Your task to perform on an android device: Search for razer deathadder on target.com, select the first entry, add it to the cart, then select checkout. Image 0: 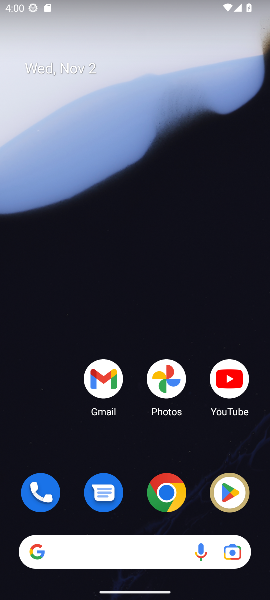
Step 0: click (167, 493)
Your task to perform on an android device: Search for razer deathadder on target.com, select the first entry, add it to the cart, then select checkout. Image 1: 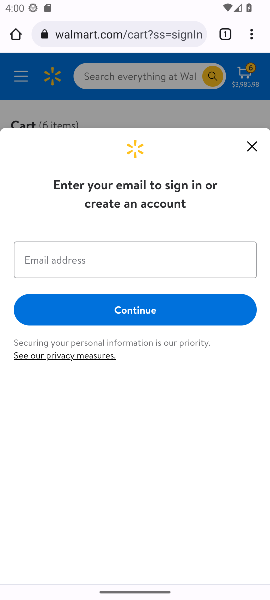
Step 1: click (148, 22)
Your task to perform on an android device: Search for razer deathadder on target.com, select the first entry, add it to the cart, then select checkout. Image 2: 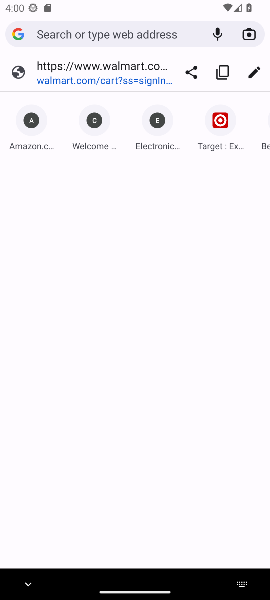
Step 2: type "target.com"
Your task to perform on an android device: Search for razer deathadder on target.com, select the first entry, add it to the cart, then select checkout. Image 3: 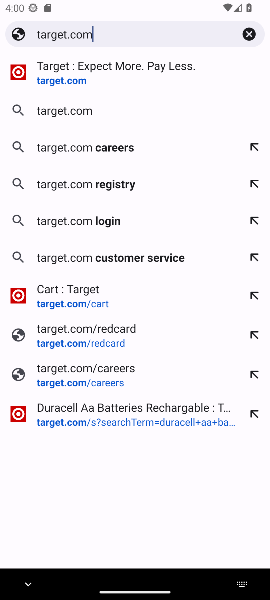
Step 3: click (58, 77)
Your task to perform on an android device: Search for razer deathadder on target.com, select the first entry, add it to the cart, then select checkout. Image 4: 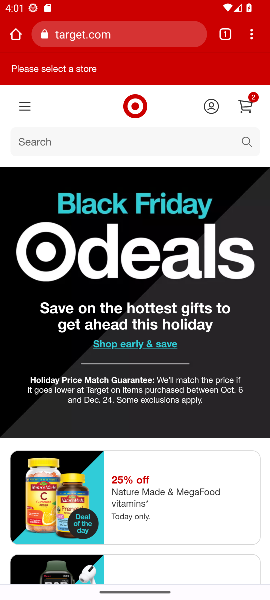
Step 4: click (47, 139)
Your task to perform on an android device: Search for razer deathadder on target.com, select the first entry, add it to the cart, then select checkout. Image 5: 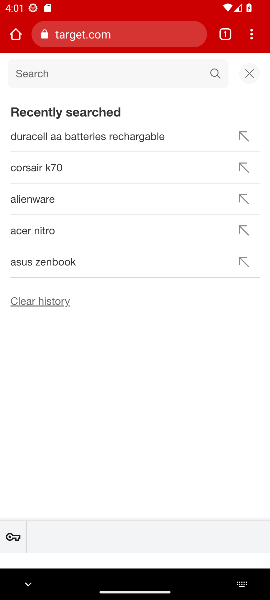
Step 5: type "razer deathadder"
Your task to perform on an android device: Search for razer deathadder on target.com, select the first entry, add it to the cart, then select checkout. Image 6: 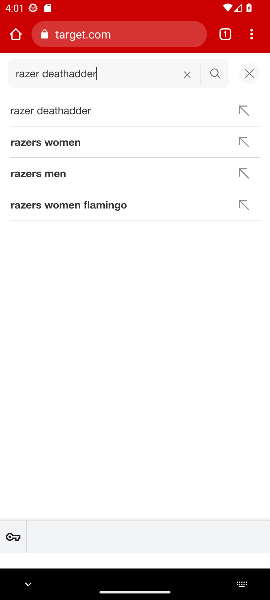
Step 6: click (59, 105)
Your task to perform on an android device: Search for razer deathadder on target.com, select the first entry, add it to the cart, then select checkout. Image 7: 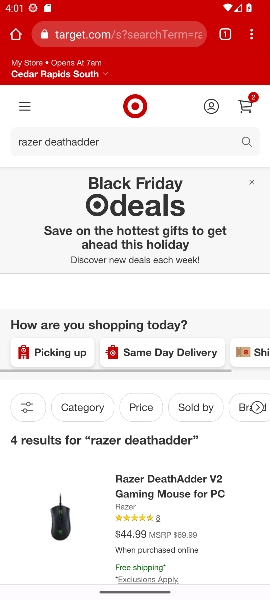
Step 7: drag from (170, 493) to (184, 274)
Your task to perform on an android device: Search for razer deathadder on target.com, select the first entry, add it to the cart, then select checkout. Image 8: 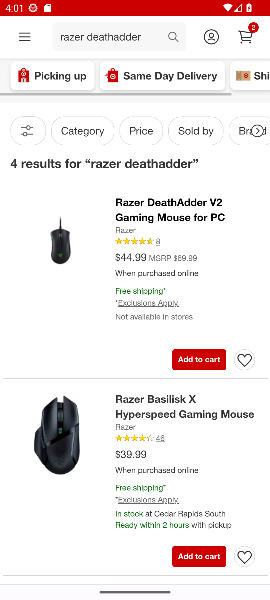
Step 8: click (203, 358)
Your task to perform on an android device: Search for razer deathadder on target.com, select the first entry, add it to the cart, then select checkout. Image 9: 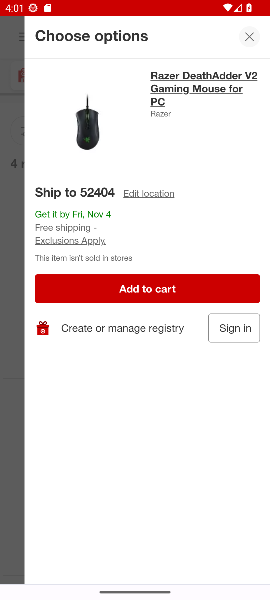
Step 9: click (145, 282)
Your task to perform on an android device: Search for razer deathadder on target.com, select the first entry, add it to the cart, then select checkout. Image 10: 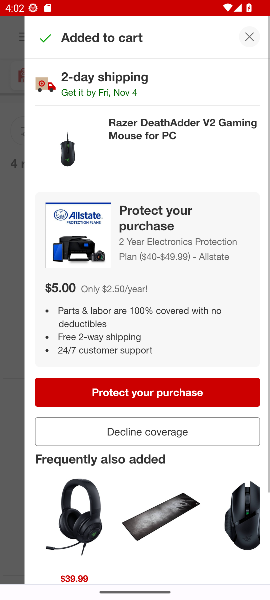
Step 10: click (249, 37)
Your task to perform on an android device: Search for razer deathadder on target.com, select the first entry, add it to the cart, then select checkout. Image 11: 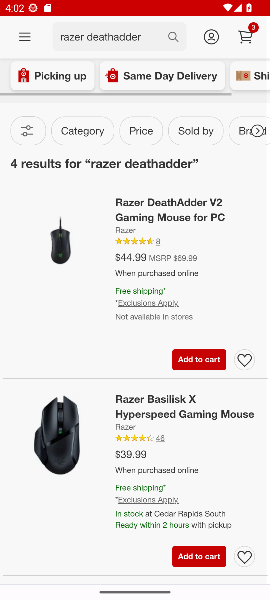
Step 11: click (244, 36)
Your task to perform on an android device: Search for razer deathadder on target.com, select the first entry, add it to the cart, then select checkout. Image 12: 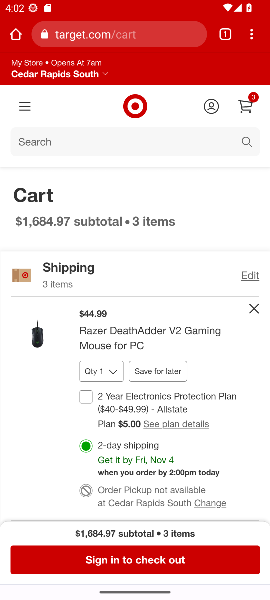
Step 12: click (151, 560)
Your task to perform on an android device: Search for razer deathadder on target.com, select the first entry, add it to the cart, then select checkout. Image 13: 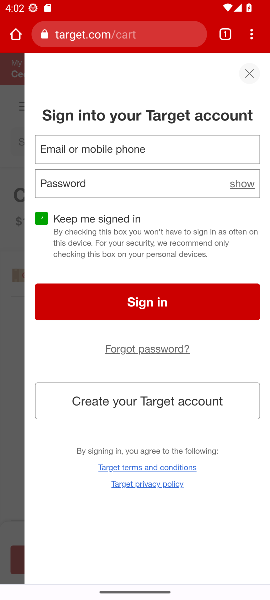
Step 13: task complete